Your task to perform on an android device: Open battery settings Image 0: 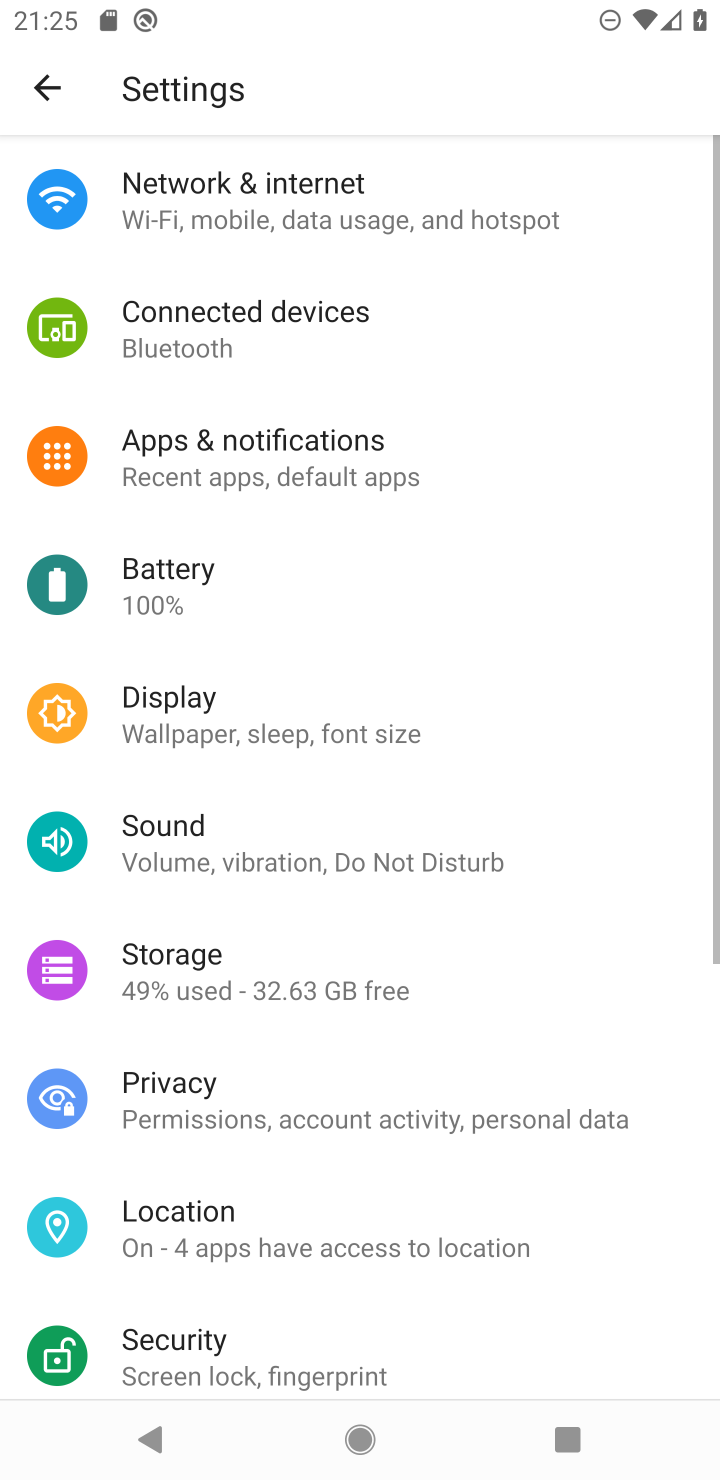
Step 0: click (170, 567)
Your task to perform on an android device: Open battery settings Image 1: 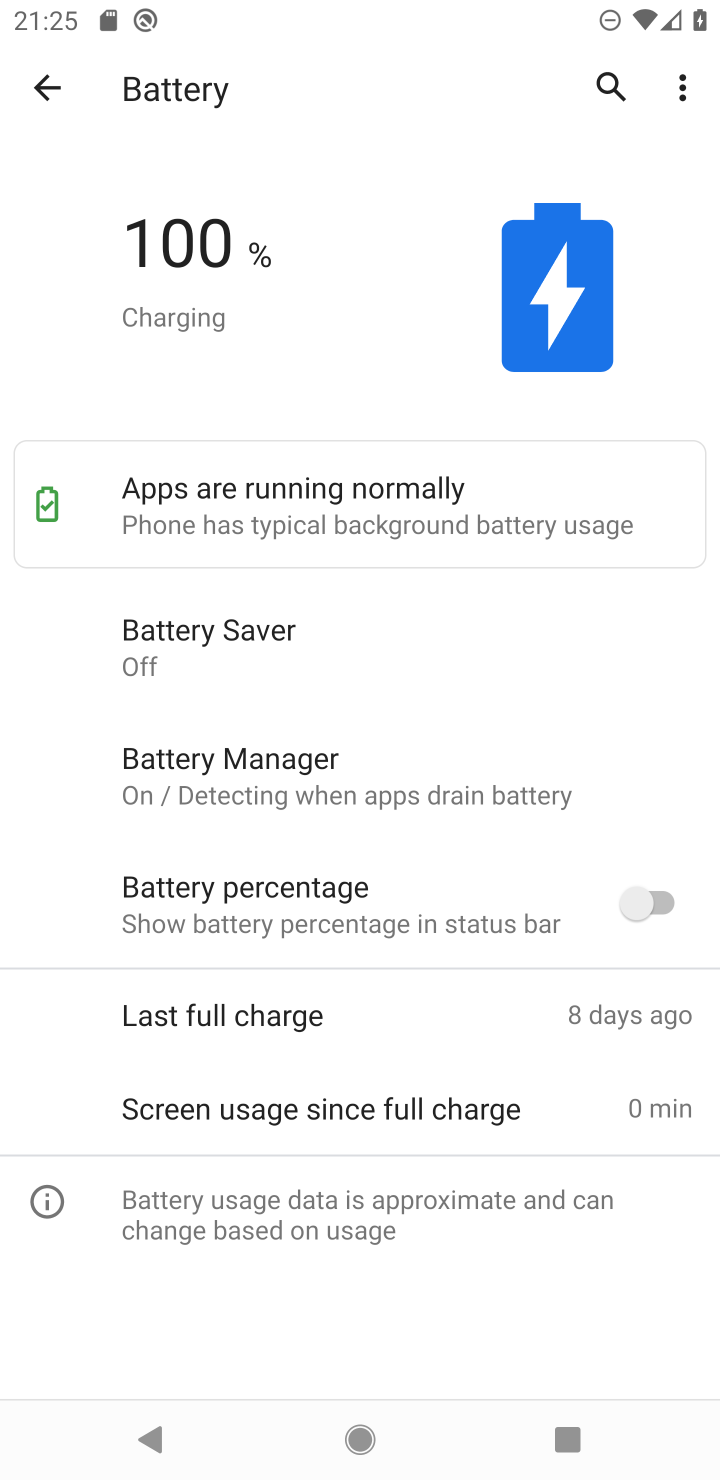
Step 1: task complete